Your task to perform on an android device: turn on translation in the chrome app Image 0: 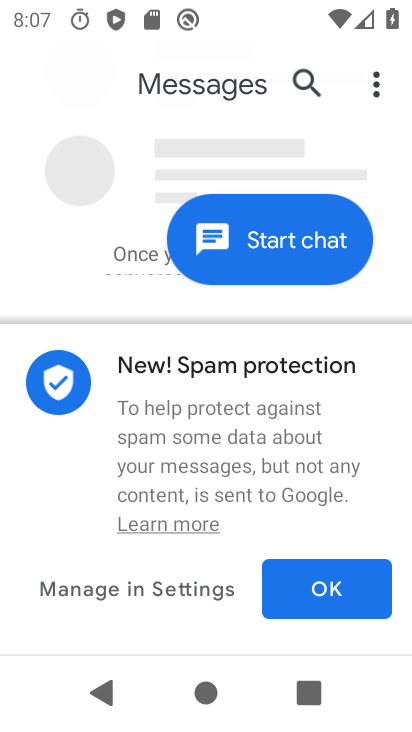
Step 0: press back button
Your task to perform on an android device: turn on translation in the chrome app Image 1: 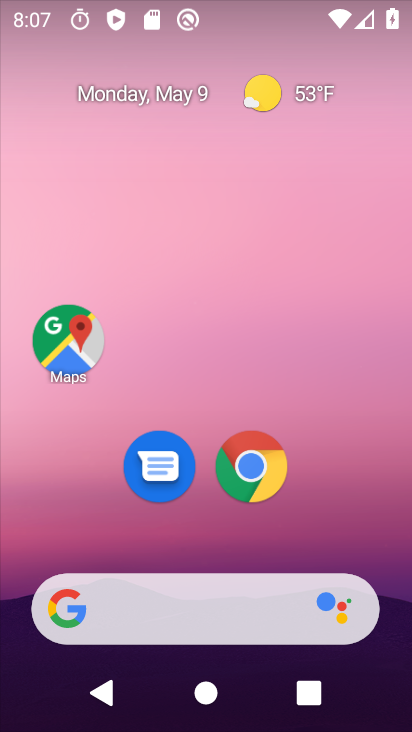
Step 1: click (250, 466)
Your task to perform on an android device: turn on translation in the chrome app Image 2: 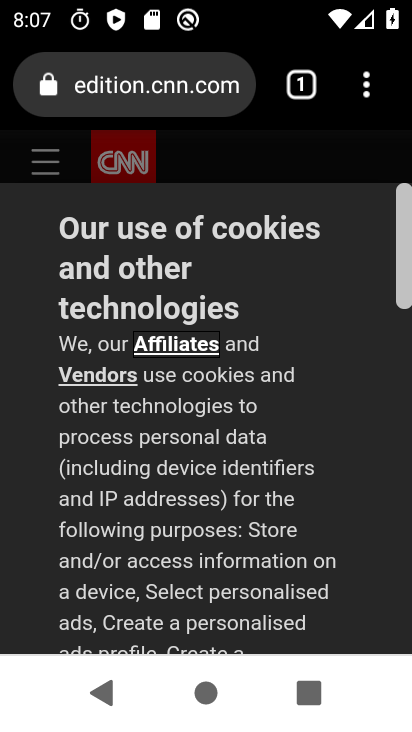
Step 2: click (367, 87)
Your task to perform on an android device: turn on translation in the chrome app Image 3: 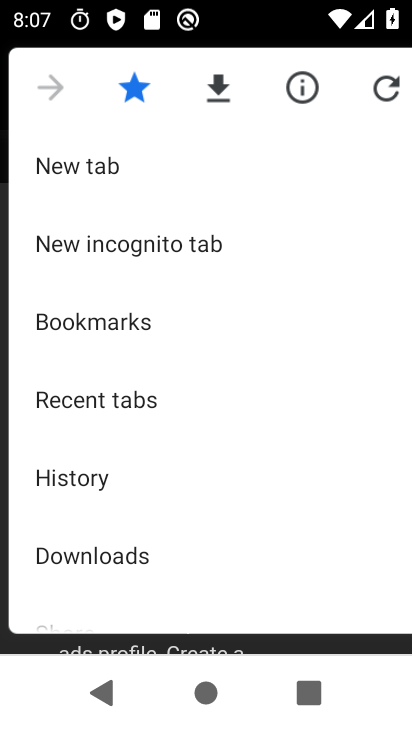
Step 3: drag from (192, 476) to (215, 346)
Your task to perform on an android device: turn on translation in the chrome app Image 4: 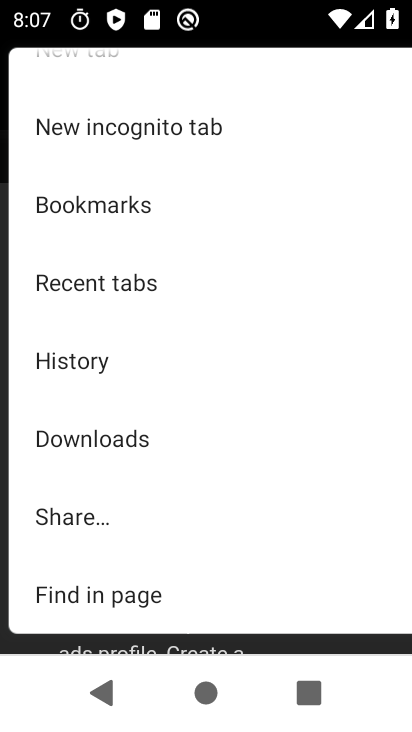
Step 4: drag from (161, 484) to (231, 364)
Your task to perform on an android device: turn on translation in the chrome app Image 5: 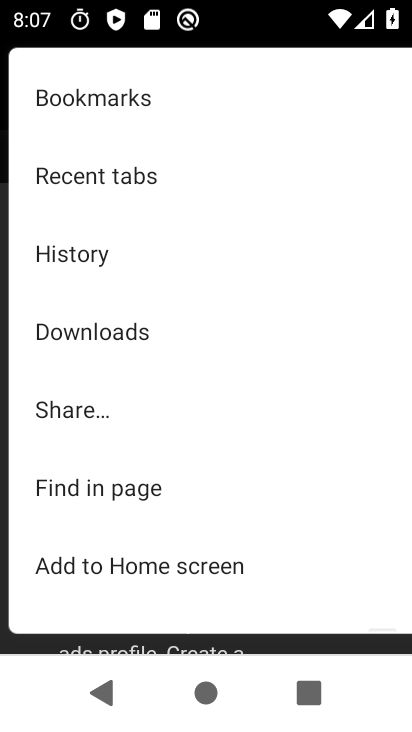
Step 5: drag from (167, 510) to (258, 353)
Your task to perform on an android device: turn on translation in the chrome app Image 6: 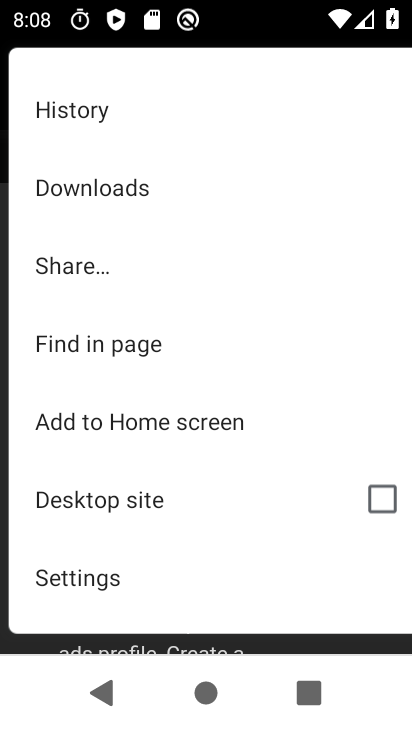
Step 6: drag from (167, 542) to (271, 365)
Your task to perform on an android device: turn on translation in the chrome app Image 7: 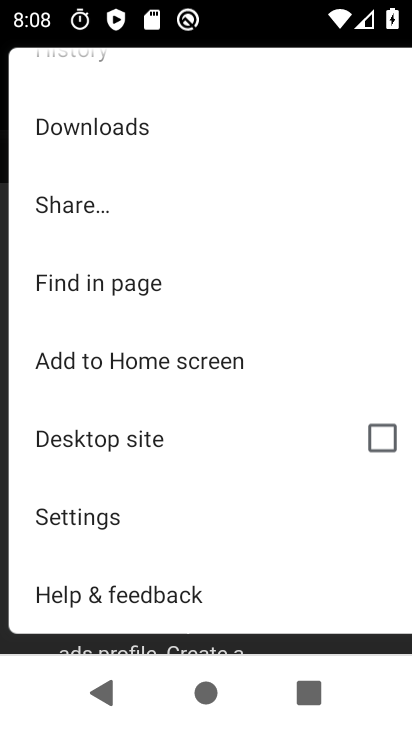
Step 7: click (72, 519)
Your task to perform on an android device: turn on translation in the chrome app Image 8: 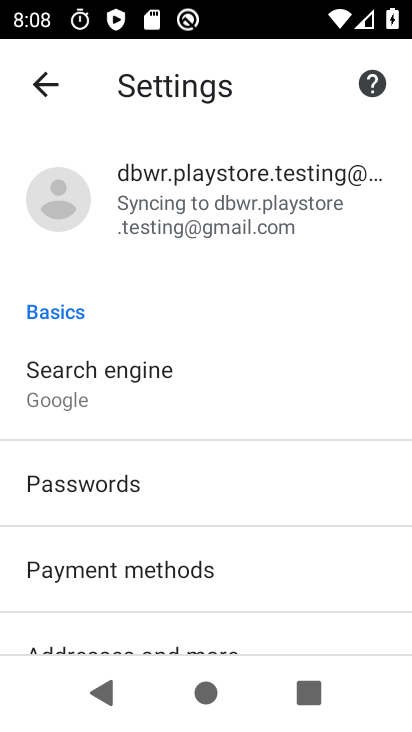
Step 8: drag from (194, 600) to (265, 448)
Your task to perform on an android device: turn on translation in the chrome app Image 9: 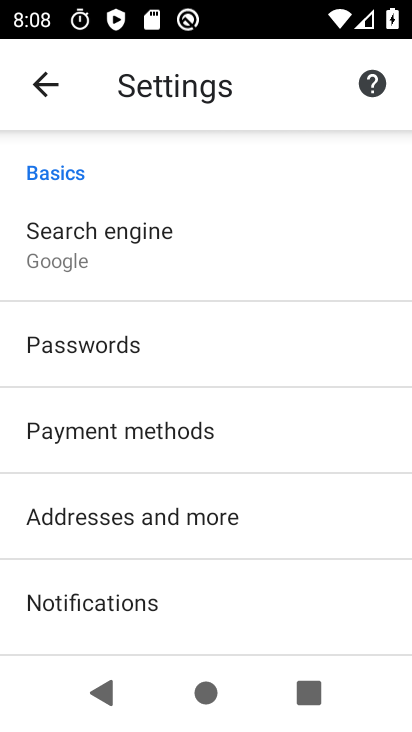
Step 9: drag from (191, 580) to (226, 461)
Your task to perform on an android device: turn on translation in the chrome app Image 10: 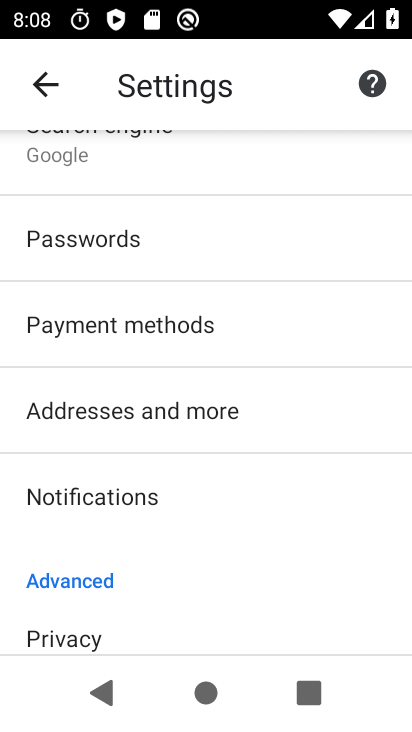
Step 10: drag from (200, 582) to (288, 451)
Your task to perform on an android device: turn on translation in the chrome app Image 11: 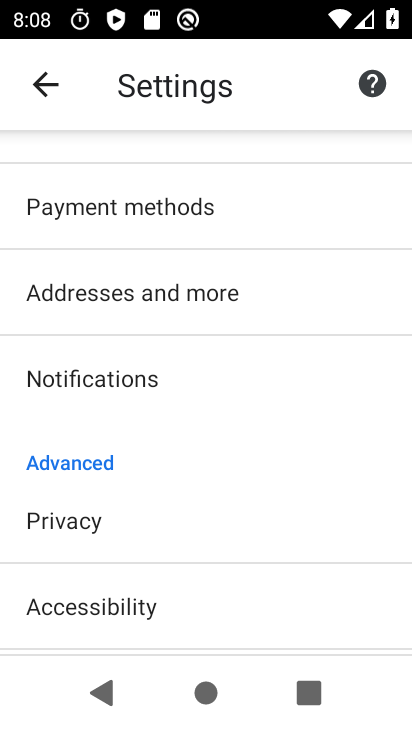
Step 11: drag from (174, 585) to (255, 471)
Your task to perform on an android device: turn on translation in the chrome app Image 12: 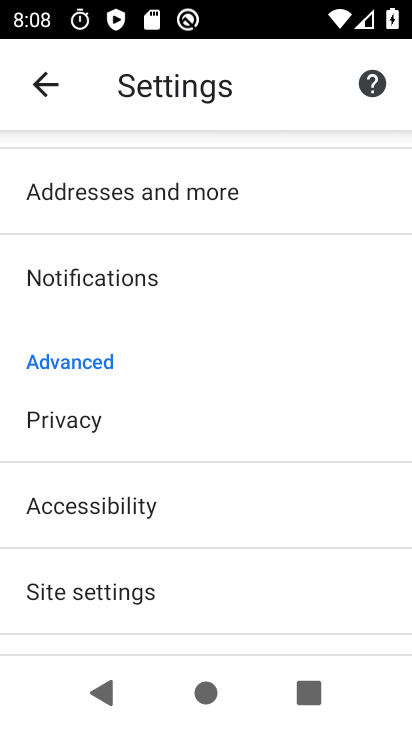
Step 12: drag from (237, 609) to (325, 478)
Your task to perform on an android device: turn on translation in the chrome app Image 13: 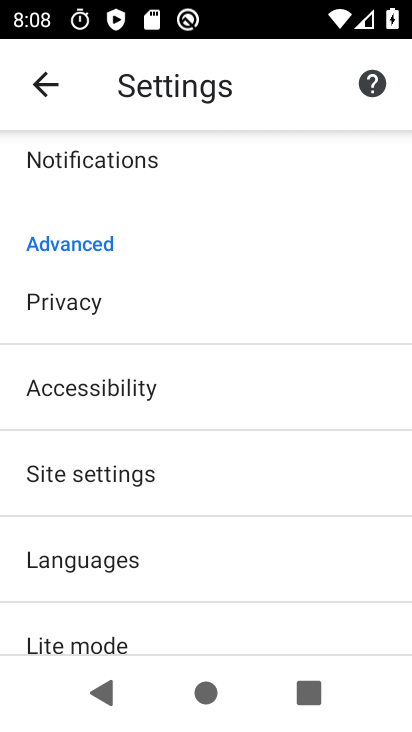
Step 13: click (126, 559)
Your task to perform on an android device: turn on translation in the chrome app Image 14: 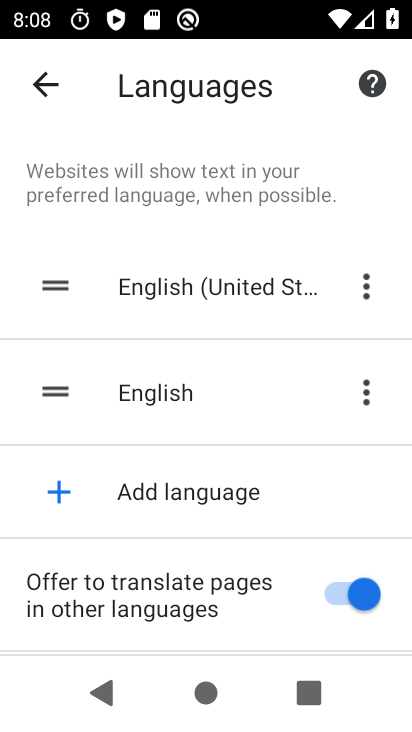
Step 14: task complete